Your task to perform on an android device: Open maps Image 0: 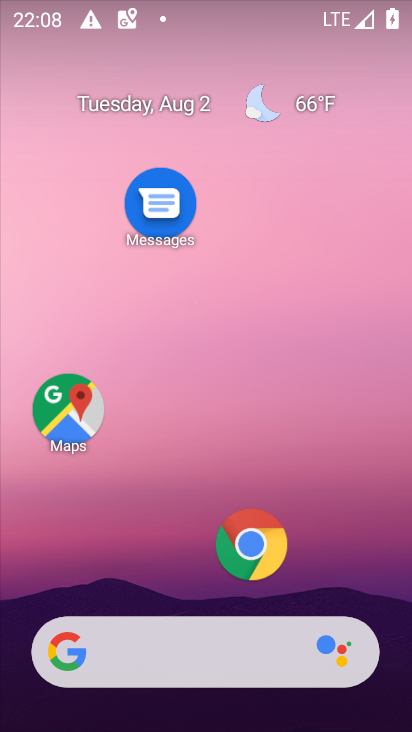
Step 0: click (74, 431)
Your task to perform on an android device: Open maps Image 1: 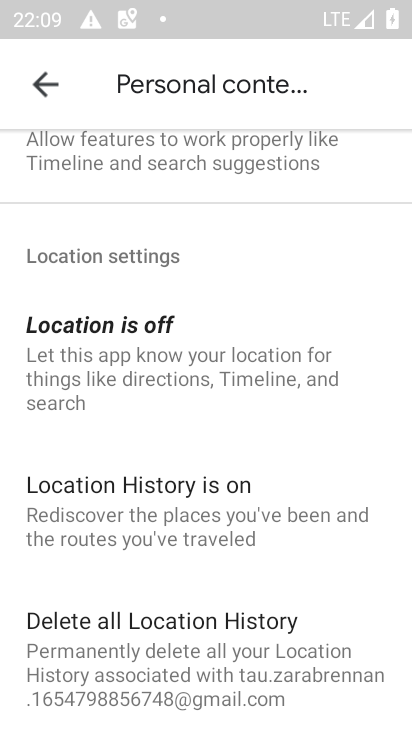
Step 1: click (49, 90)
Your task to perform on an android device: Open maps Image 2: 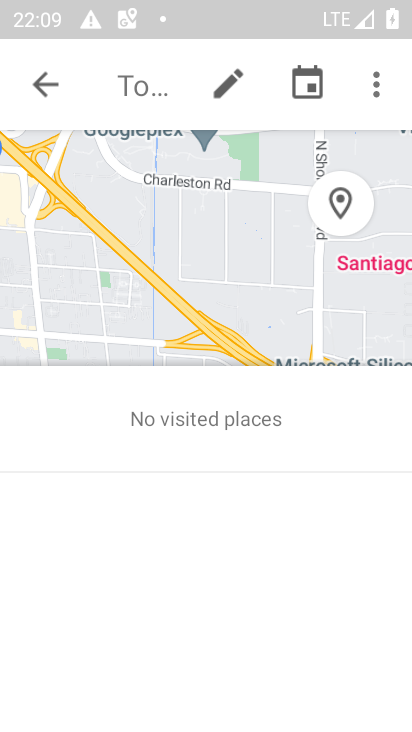
Step 2: task complete